Your task to perform on an android device: toggle improve location accuracy Image 0: 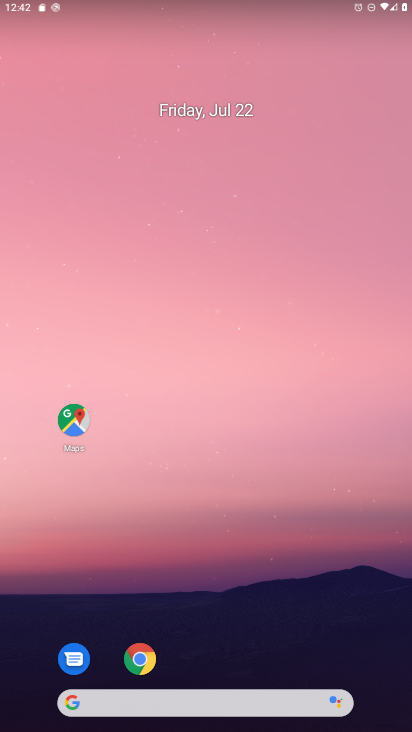
Step 0: drag from (274, 703) to (256, 134)
Your task to perform on an android device: toggle improve location accuracy Image 1: 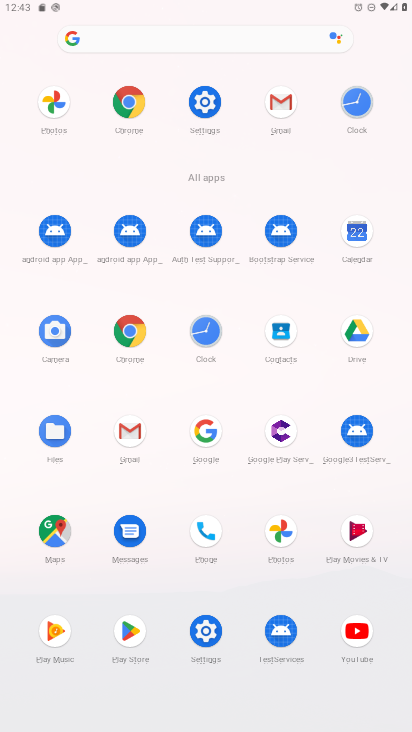
Step 1: click (208, 95)
Your task to perform on an android device: toggle improve location accuracy Image 2: 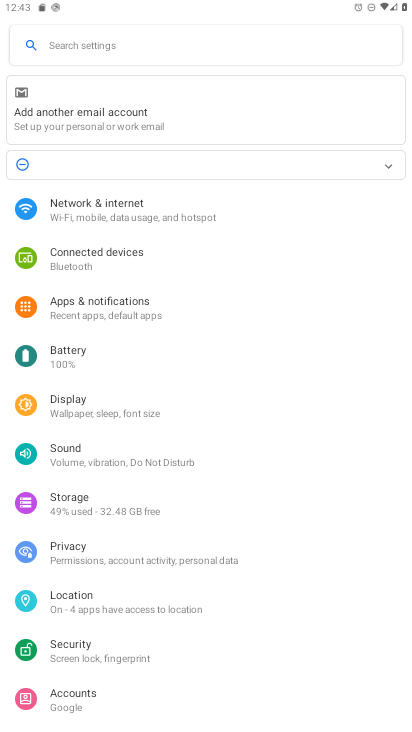
Step 2: click (107, 606)
Your task to perform on an android device: toggle improve location accuracy Image 3: 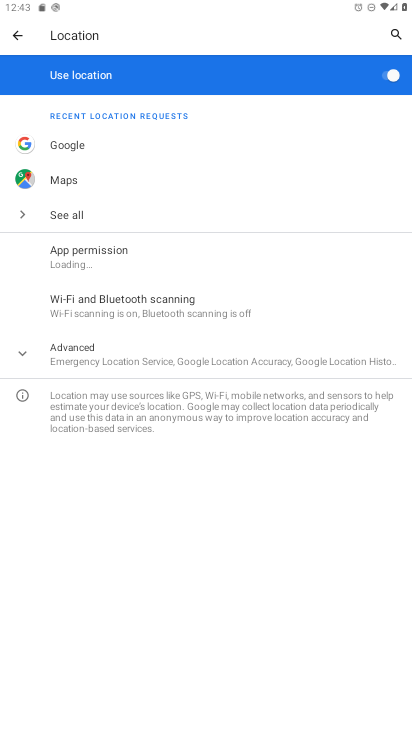
Step 3: click (47, 351)
Your task to perform on an android device: toggle improve location accuracy Image 4: 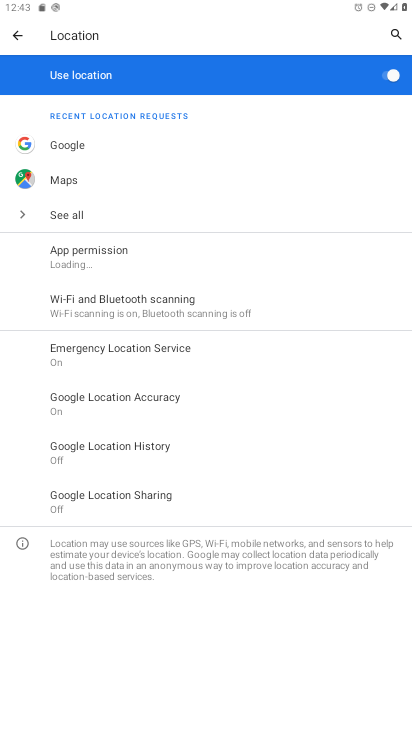
Step 4: click (92, 402)
Your task to perform on an android device: toggle improve location accuracy Image 5: 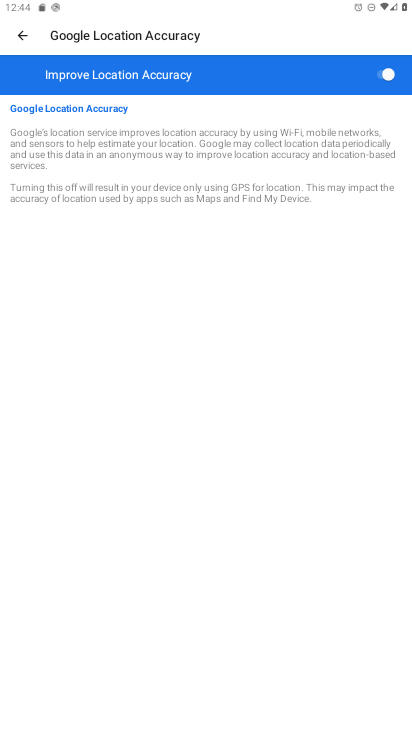
Step 5: task complete